Your task to perform on an android device: open app "Gmail" Image 0: 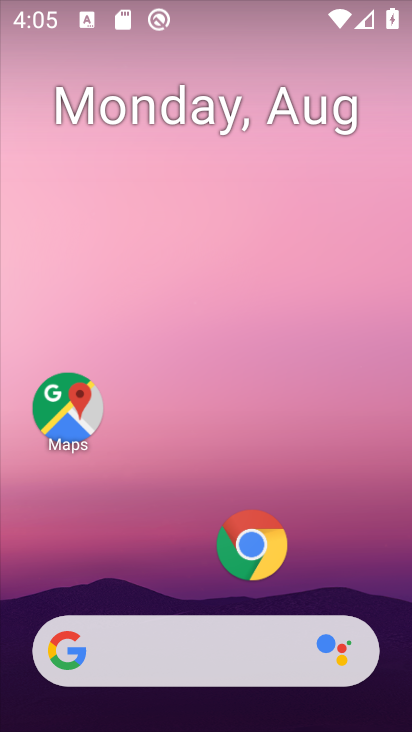
Step 0: drag from (146, 539) to (172, 19)
Your task to perform on an android device: open app "Gmail" Image 1: 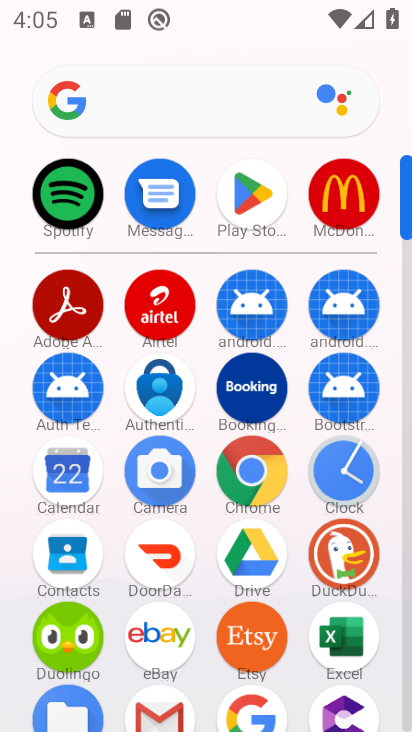
Step 1: click (156, 710)
Your task to perform on an android device: open app "Gmail" Image 2: 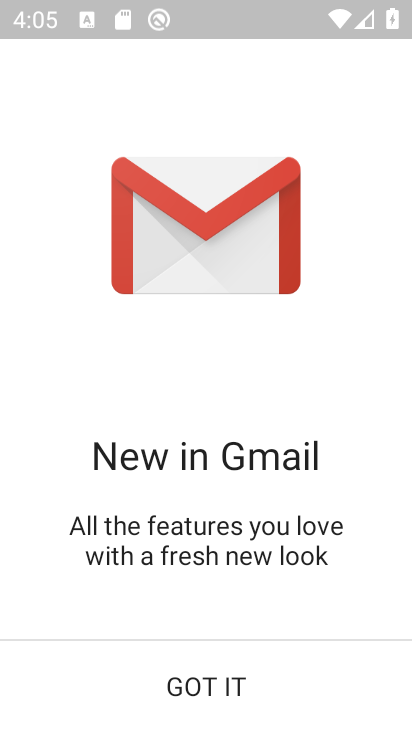
Step 2: task complete